Your task to perform on an android device: Open Google Maps Image 0: 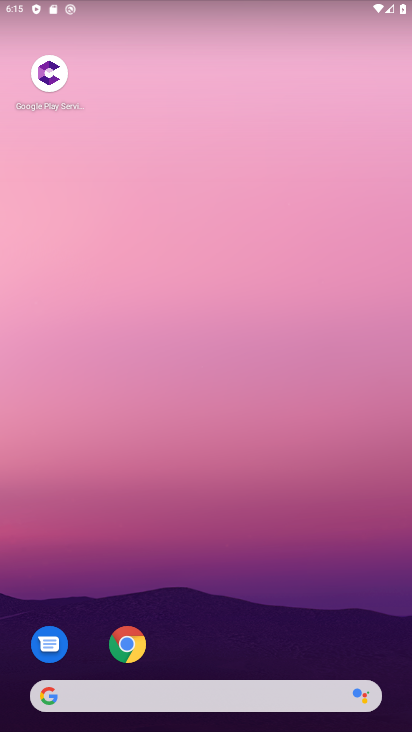
Step 0: press home button
Your task to perform on an android device: Open Google Maps Image 1: 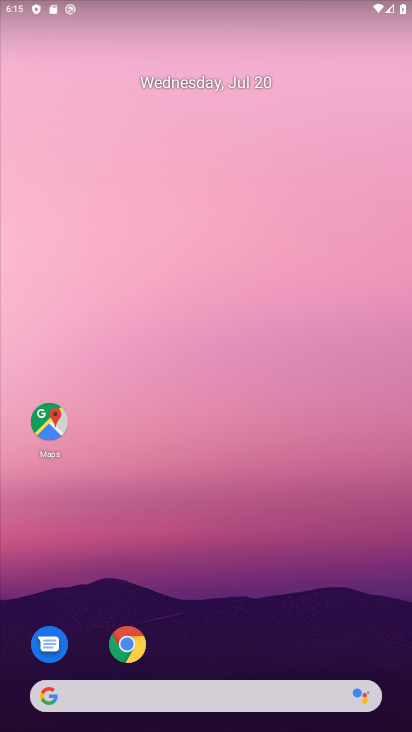
Step 1: drag from (249, 524) to (281, 79)
Your task to perform on an android device: Open Google Maps Image 2: 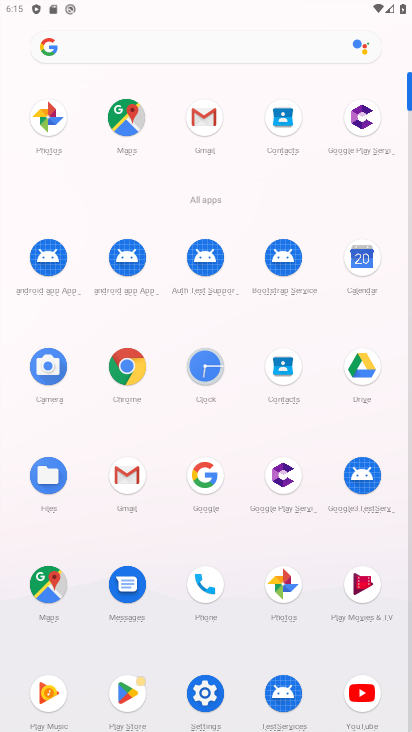
Step 2: click (121, 123)
Your task to perform on an android device: Open Google Maps Image 3: 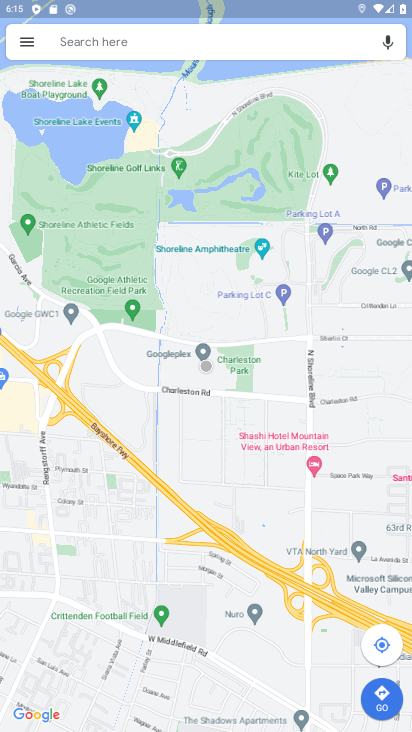
Step 3: task complete